Your task to perform on an android device: Open the phone app and click the voicemail tab. Image 0: 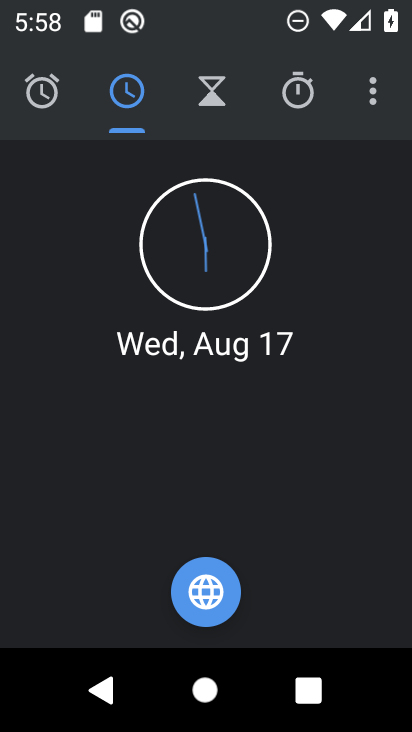
Step 0: press home button
Your task to perform on an android device: Open the phone app and click the voicemail tab. Image 1: 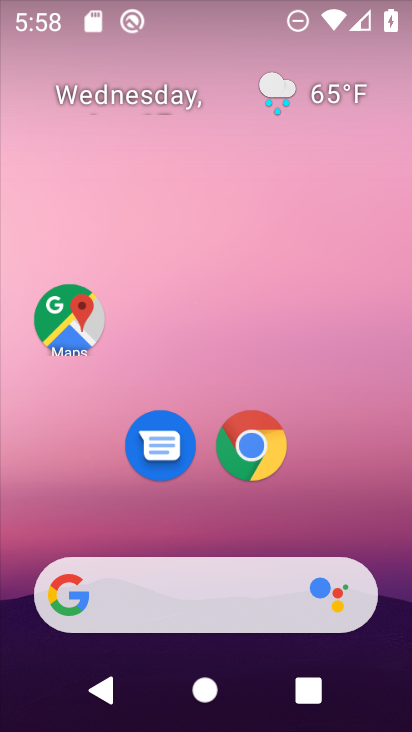
Step 1: drag from (193, 510) to (197, 129)
Your task to perform on an android device: Open the phone app and click the voicemail tab. Image 2: 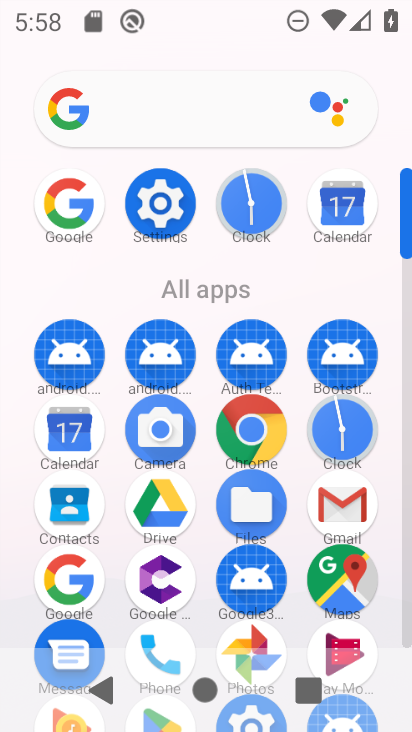
Step 2: drag from (196, 509) to (196, 247)
Your task to perform on an android device: Open the phone app and click the voicemail tab. Image 3: 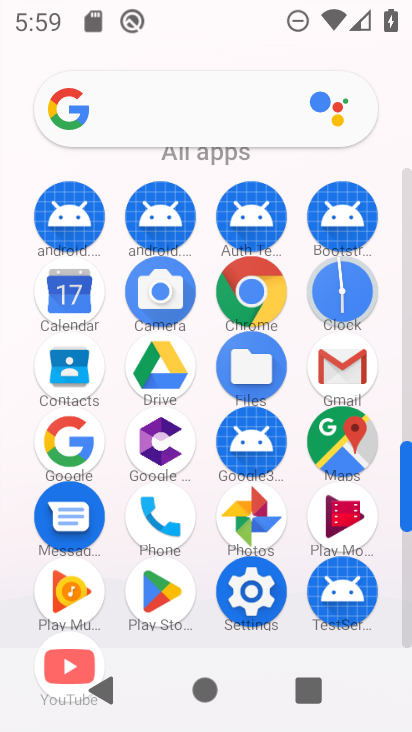
Step 3: click (146, 509)
Your task to perform on an android device: Open the phone app and click the voicemail tab. Image 4: 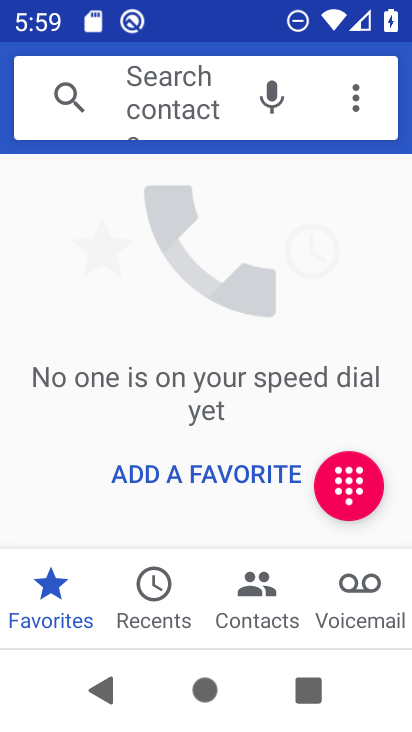
Step 4: click (349, 590)
Your task to perform on an android device: Open the phone app and click the voicemail tab. Image 5: 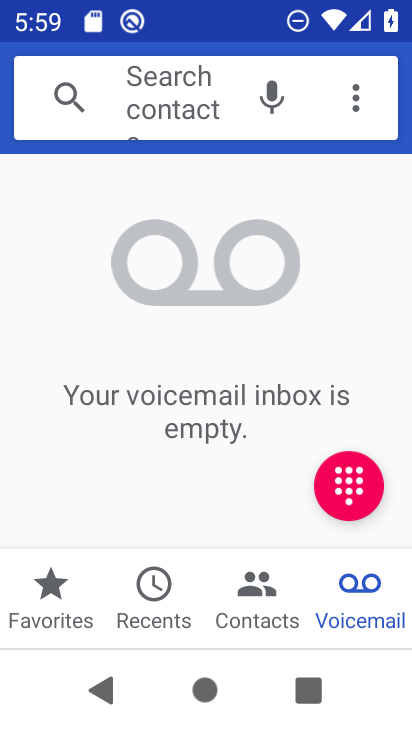
Step 5: task complete